Your task to perform on an android device: Search for seafood restaurants on Google Maps Image 0: 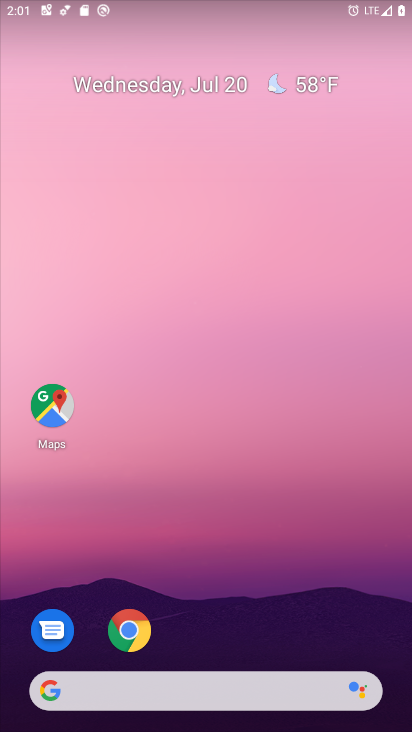
Step 0: drag from (277, 657) to (362, 150)
Your task to perform on an android device: Search for seafood restaurants on Google Maps Image 1: 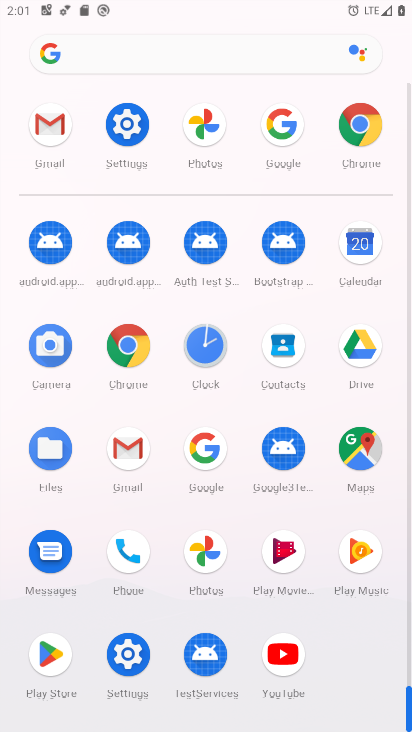
Step 1: click (362, 478)
Your task to perform on an android device: Search for seafood restaurants on Google Maps Image 2: 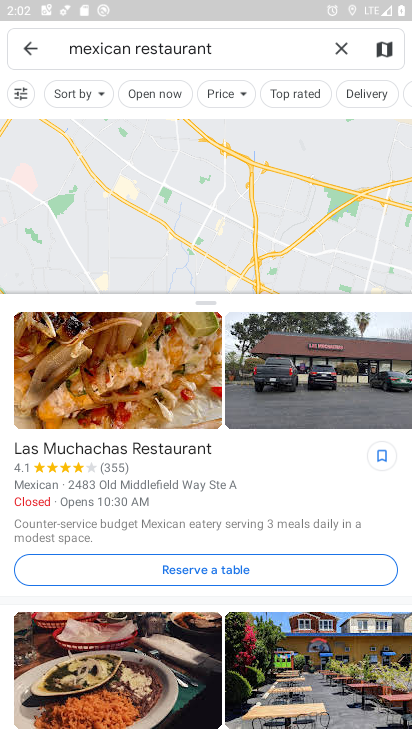
Step 2: click (345, 51)
Your task to perform on an android device: Search for seafood restaurants on Google Maps Image 3: 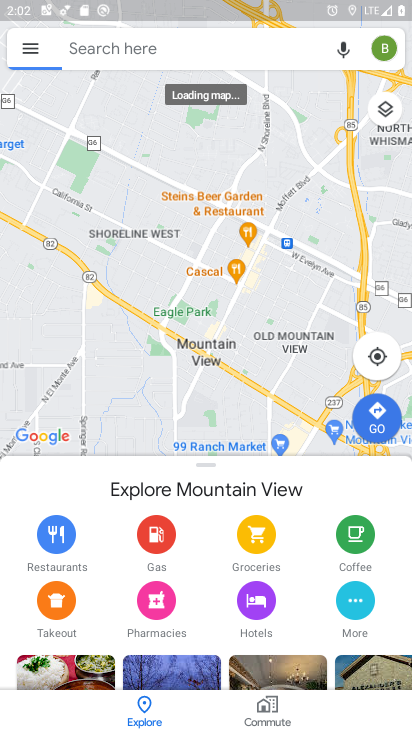
Step 3: click (218, 57)
Your task to perform on an android device: Search for seafood restaurants on Google Maps Image 4: 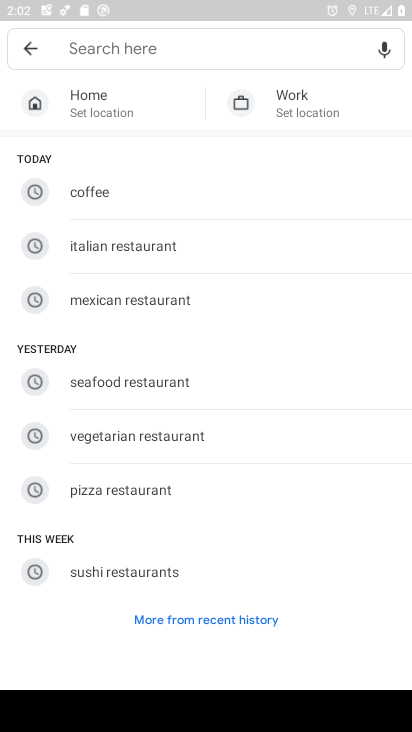
Step 4: click (117, 382)
Your task to perform on an android device: Search for seafood restaurants on Google Maps Image 5: 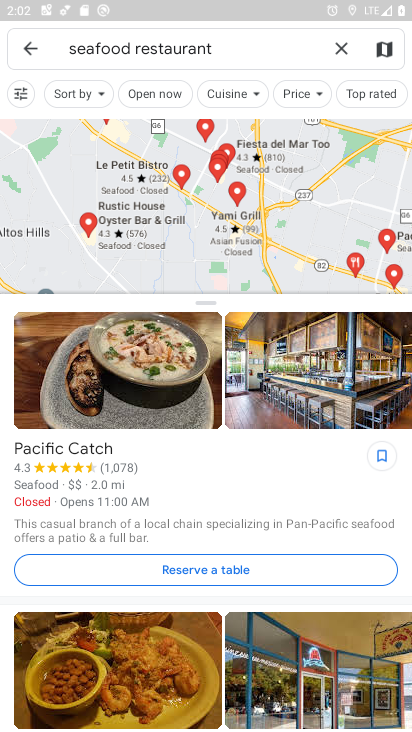
Step 5: task complete